Your task to perform on an android device: Open the web browser Image 0: 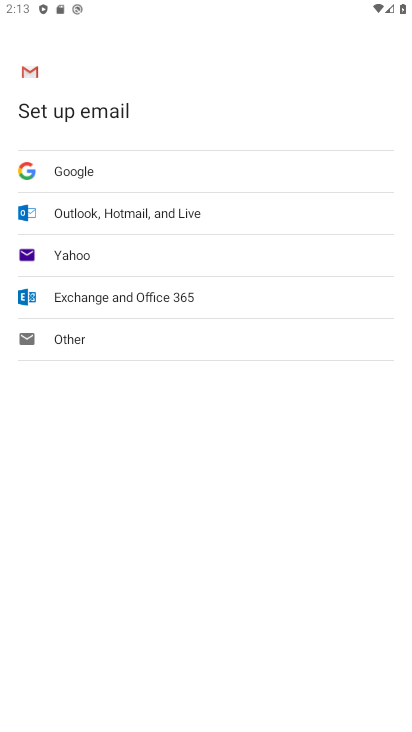
Step 0: press home button
Your task to perform on an android device: Open the web browser Image 1: 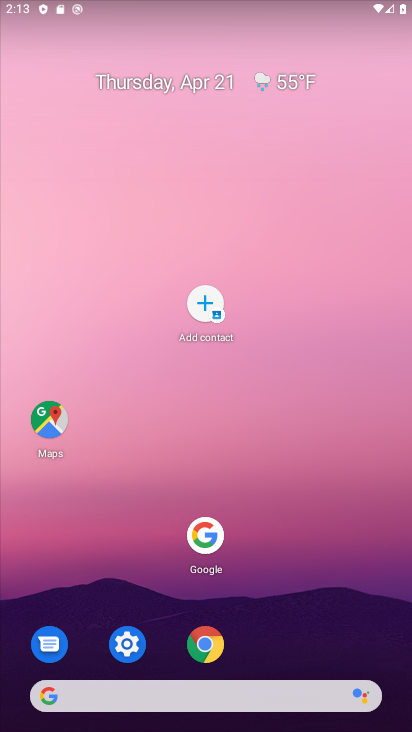
Step 1: drag from (313, 630) to (136, 55)
Your task to perform on an android device: Open the web browser Image 2: 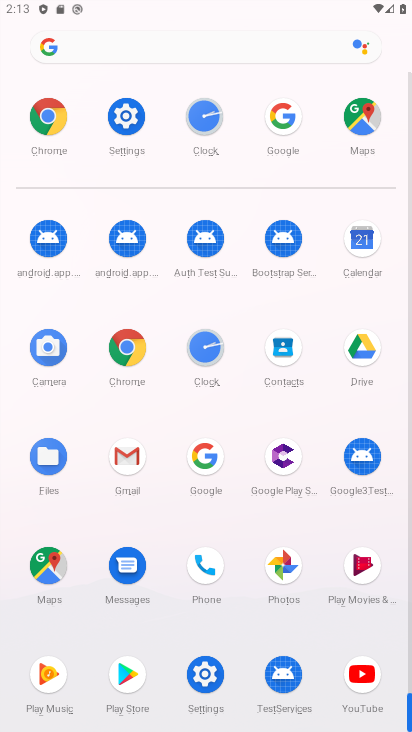
Step 2: click (39, 119)
Your task to perform on an android device: Open the web browser Image 3: 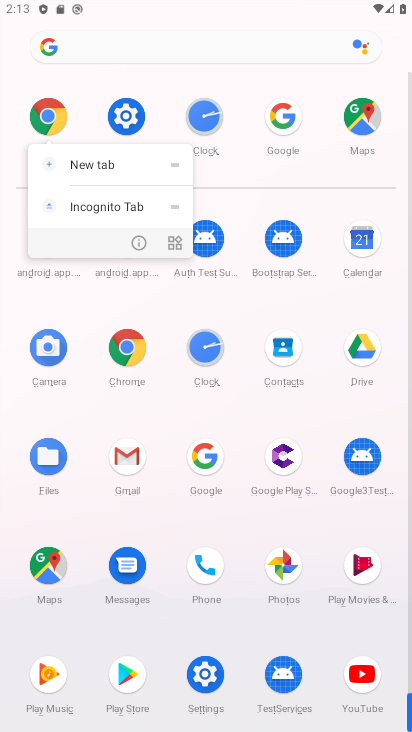
Step 3: click (40, 118)
Your task to perform on an android device: Open the web browser Image 4: 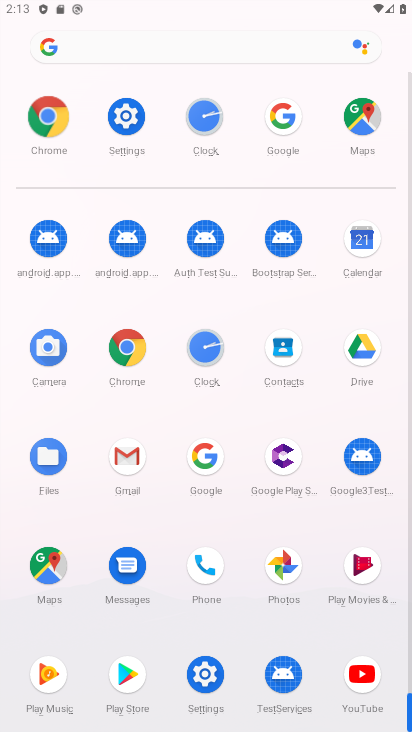
Step 4: click (42, 117)
Your task to perform on an android device: Open the web browser Image 5: 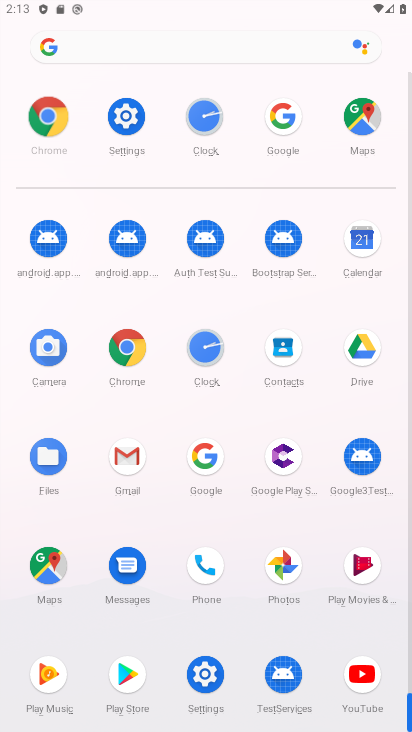
Step 5: click (43, 103)
Your task to perform on an android device: Open the web browser Image 6: 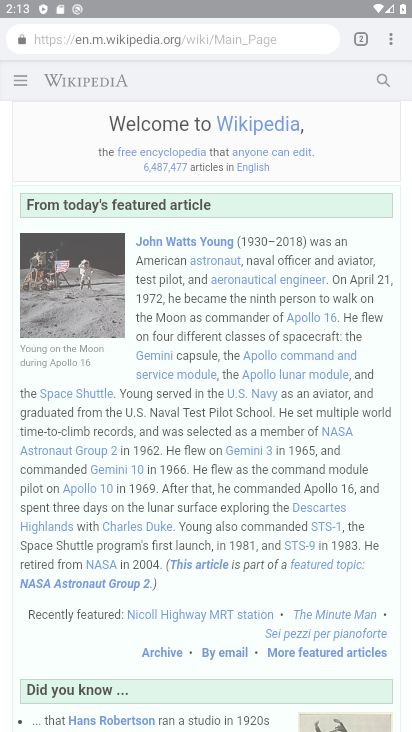
Step 6: click (43, 103)
Your task to perform on an android device: Open the web browser Image 7: 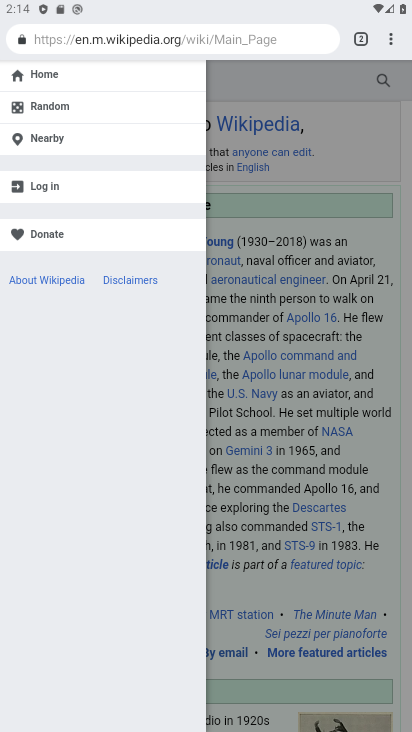
Step 7: click (347, 165)
Your task to perform on an android device: Open the web browser Image 8: 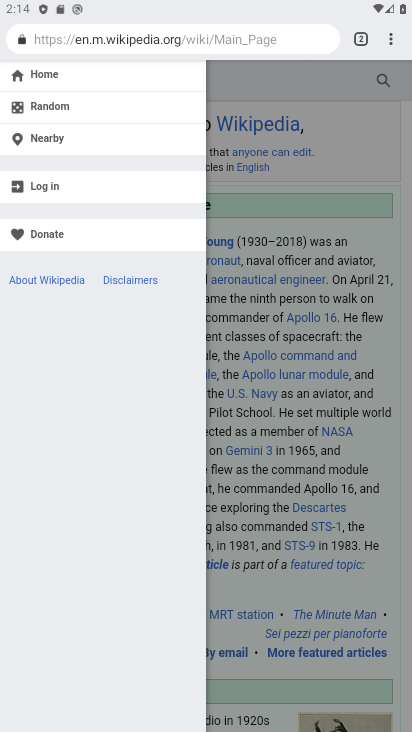
Step 8: click (362, 488)
Your task to perform on an android device: Open the web browser Image 9: 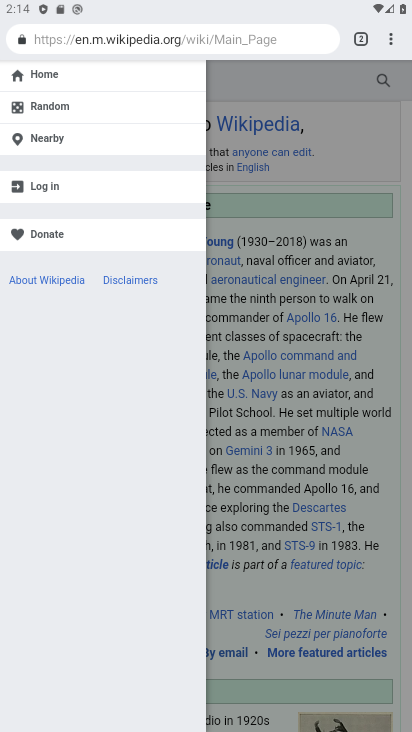
Step 9: click (300, 633)
Your task to perform on an android device: Open the web browser Image 10: 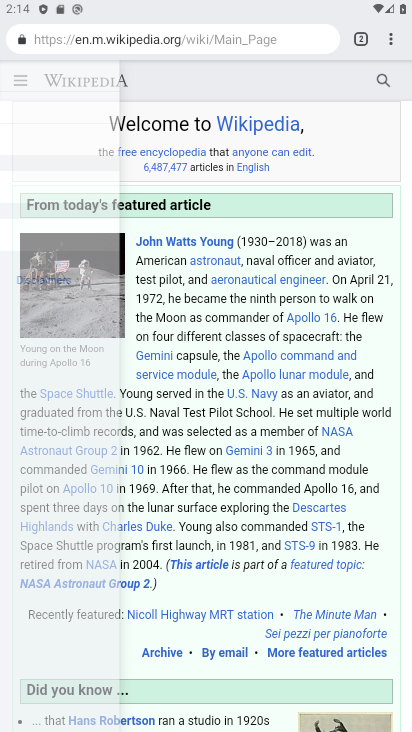
Step 10: drag from (310, 170) to (326, 115)
Your task to perform on an android device: Open the web browser Image 11: 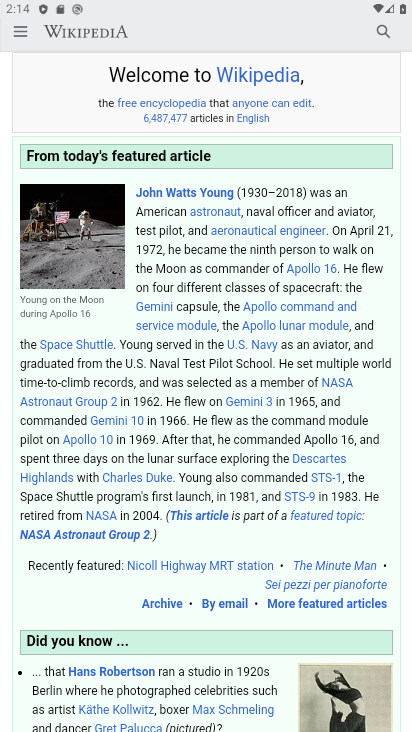
Step 11: drag from (200, 174) to (238, 432)
Your task to perform on an android device: Open the web browser Image 12: 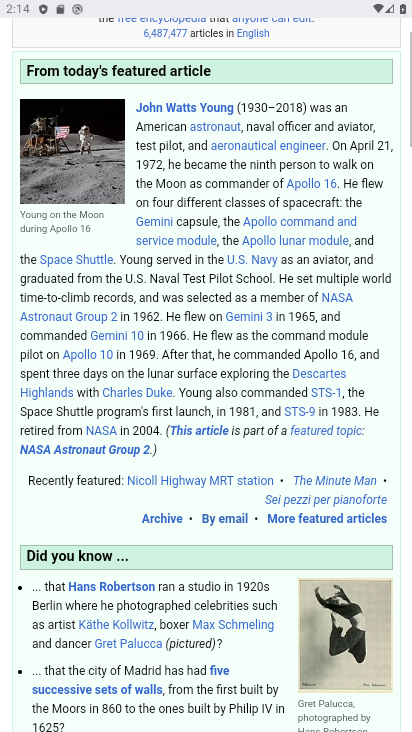
Step 12: drag from (198, 141) to (220, 517)
Your task to perform on an android device: Open the web browser Image 13: 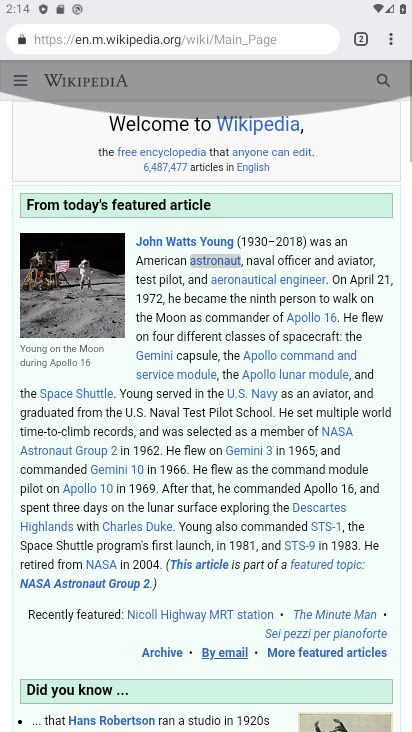
Step 13: drag from (309, 233) to (318, 433)
Your task to perform on an android device: Open the web browser Image 14: 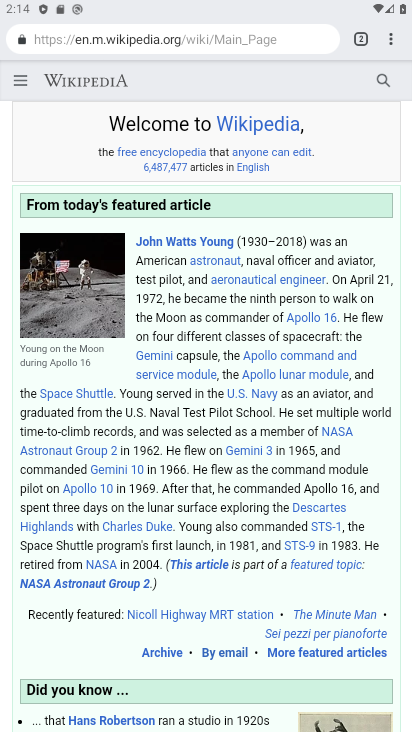
Step 14: drag from (271, 416) to (294, 500)
Your task to perform on an android device: Open the web browser Image 15: 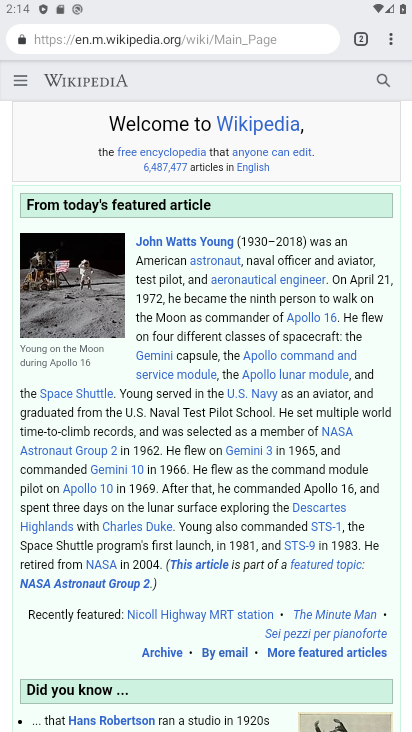
Step 15: drag from (383, 34) to (235, 117)
Your task to perform on an android device: Open the web browser Image 16: 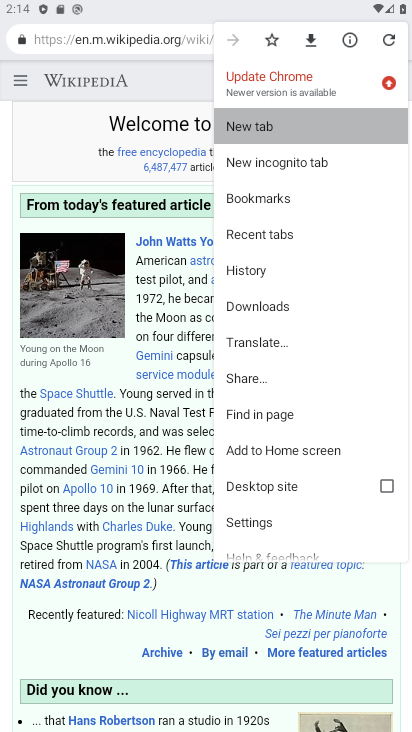
Step 16: click (235, 117)
Your task to perform on an android device: Open the web browser Image 17: 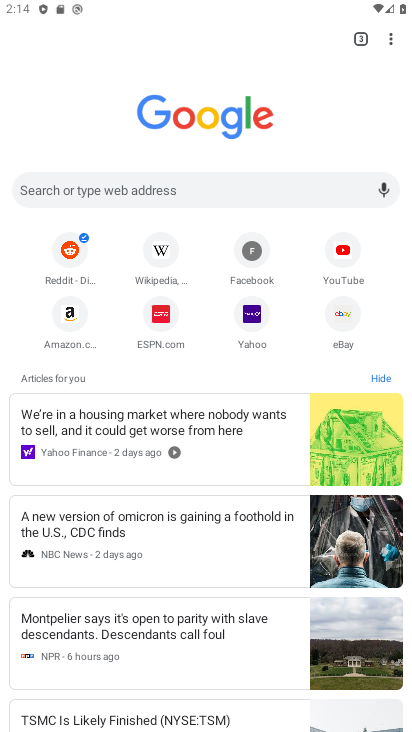
Step 17: task complete